Your task to perform on an android device: make emails show in primary in the gmail app Image 0: 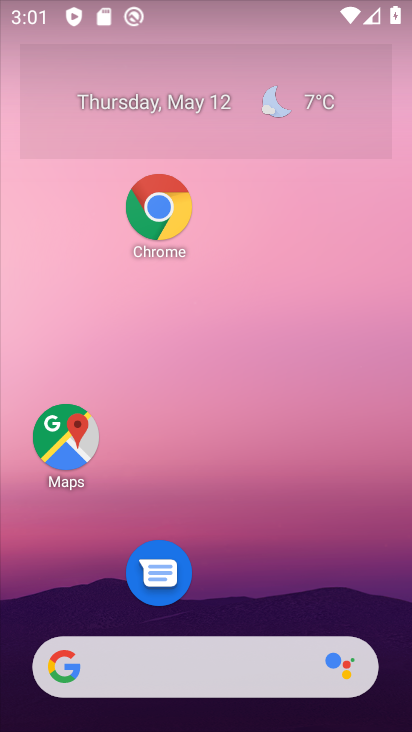
Step 0: drag from (233, 608) to (284, 7)
Your task to perform on an android device: make emails show in primary in the gmail app Image 1: 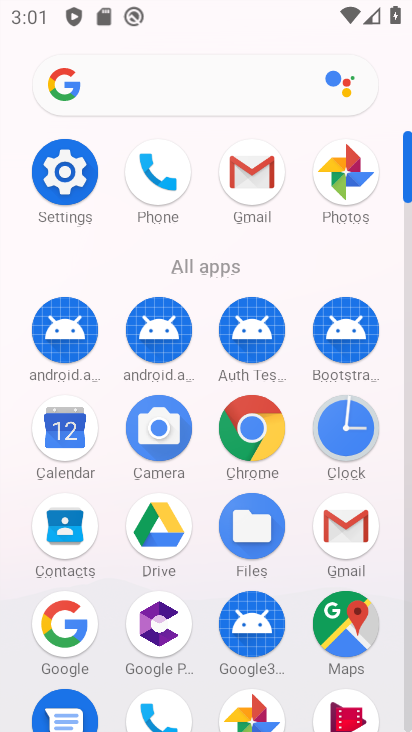
Step 1: click (253, 146)
Your task to perform on an android device: make emails show in primary in the gmail app Image 2: 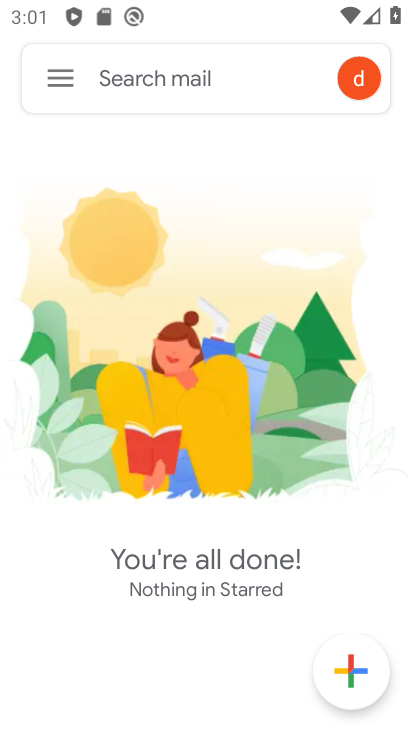
Step 2: click (44, 63)
Your task to perform on an android device: make emails show in primary in the gmail app Image 3: 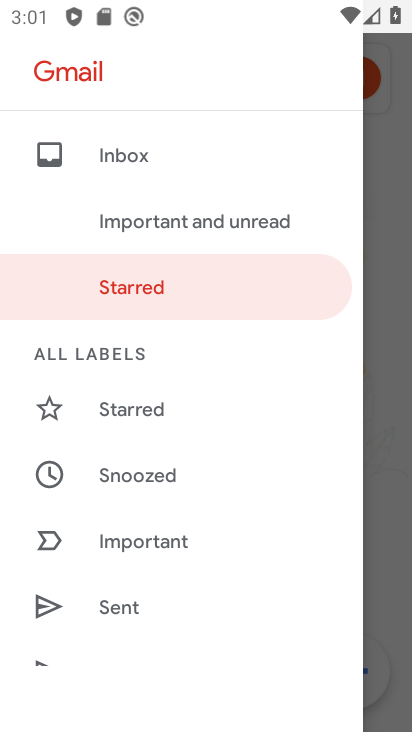
Step 3: drag from (117, 475) to (168, 117)
Your task to perform on an android device: make emails show in primary in the gmail app Image 4: 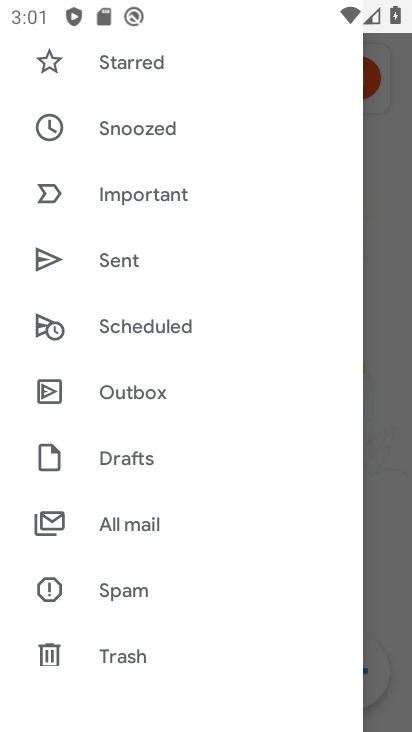
Step 4: click (124, 532)
Your task to perform on an android device: make emails show in primary in the gmail app Image 5: 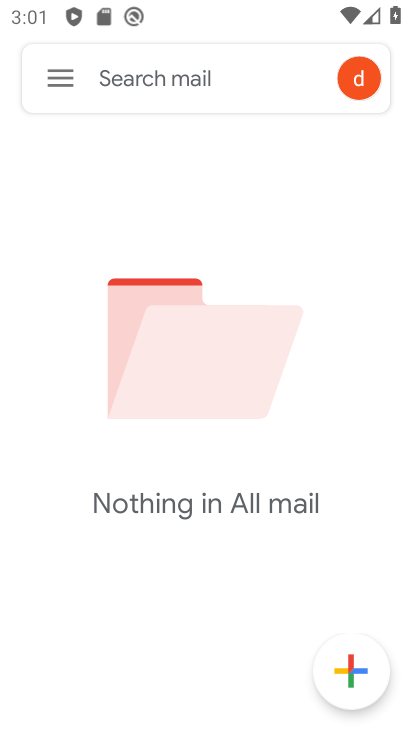
Step 5: task complete